Your task to perform on an android device: Go to internet settings Image 0: 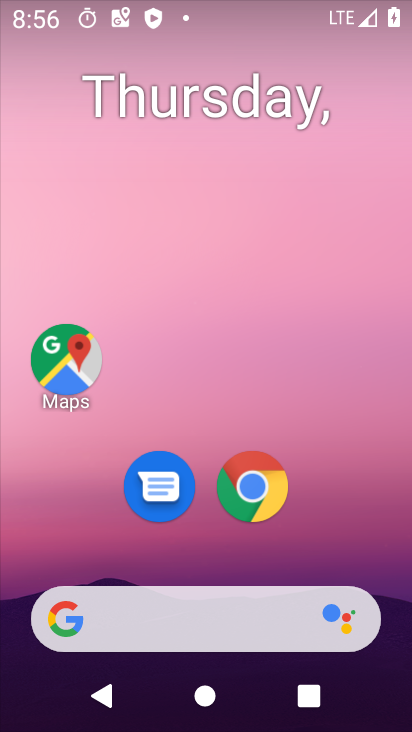
Step 0: drag from (216, 630) to (253, 186)
Your task to perform on an android device: Go to internet settings Image 1: 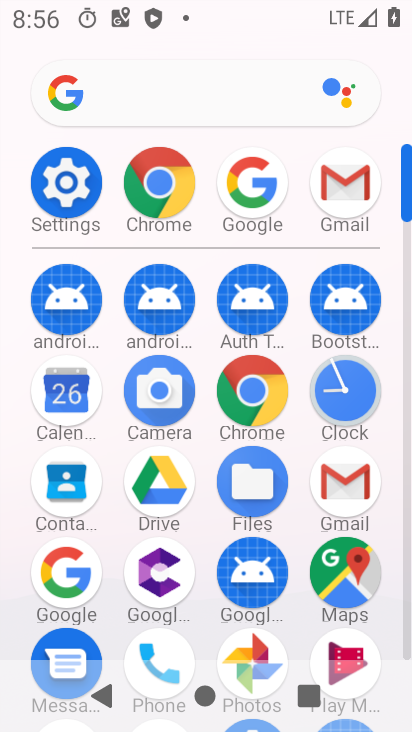
Step 1: click (82, 199)
Your task to perform on an android device: Go to internet settings Image 2: 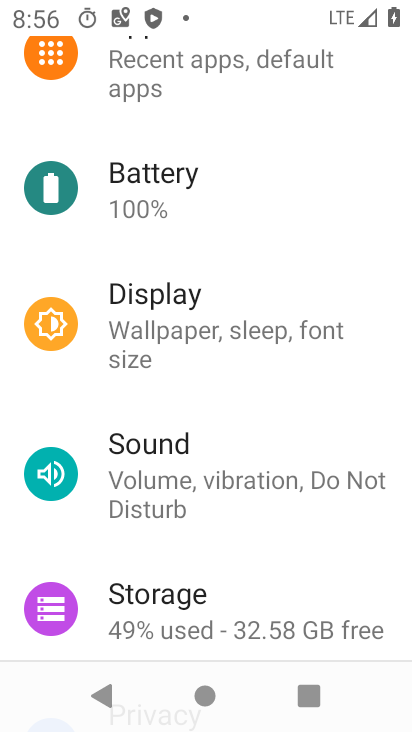
Step 2: drag from (200, 306) to (180, 614)
Your task to perform on an android device: Go to internet settings Image 3: 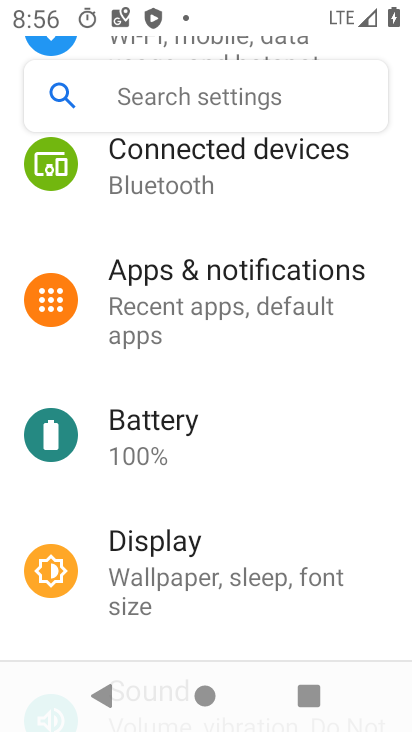
Step 3: drag from (223, 253) to (201, 555)
Your task to perform on an android device: Go to internet settings Image 4: 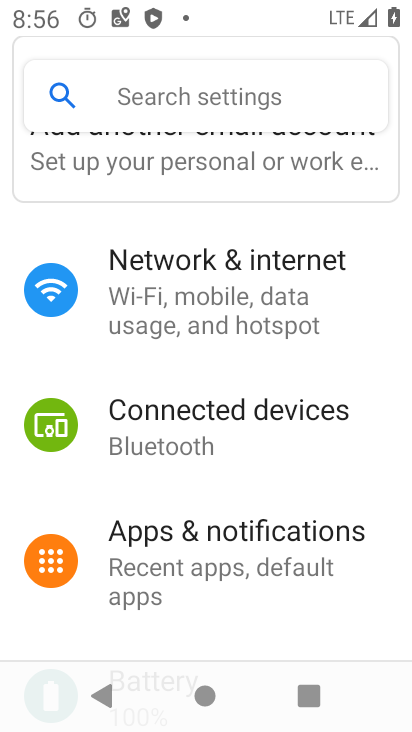
Step 4: click (214, 285)
Your task to perform on an android device: Go to internet settings Image 5: 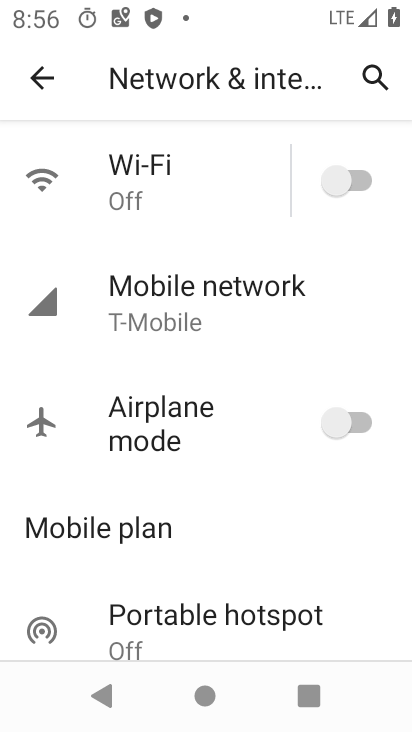
Step 5: click (185, 297)
Your task to perform on an android device: Go to internet settings Image 6: 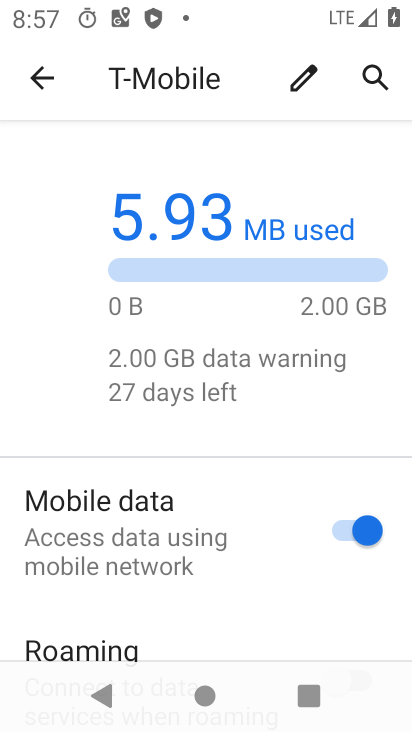
Step 6: task complete